Your task to perform on an android device: Go to sound settings Image 0: 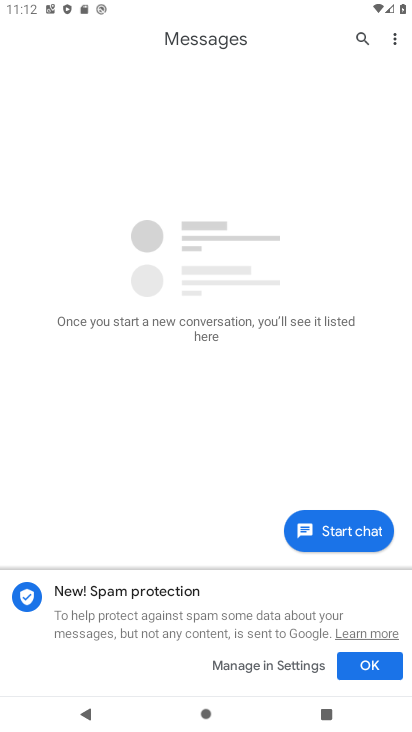
Step 0: press home button
Your task to perform on an android device: Go to sound settings Image 1: 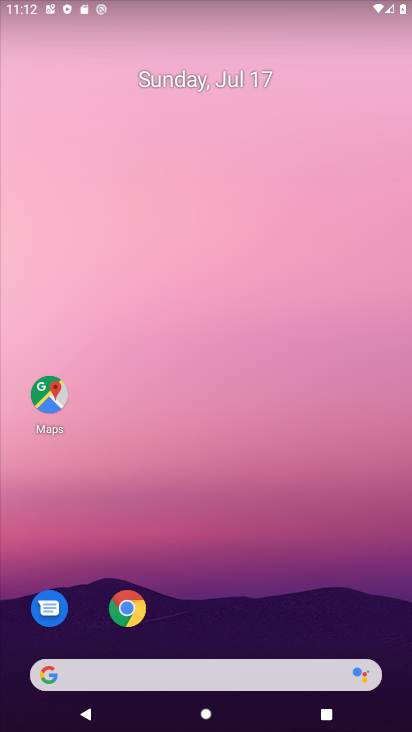
Step 1: drag from (202, 675) to (387, 265)
Your task to perform on an android device: Go to sound settings Image 2: 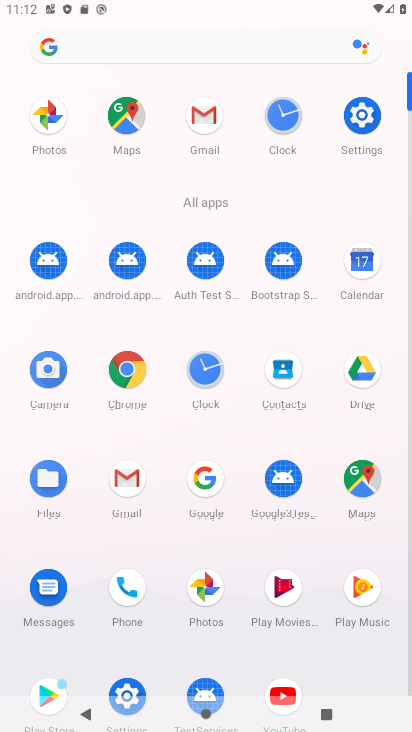
Step 2: click (359, 116)
Your task to perform on an android device: Go to sound settings Image 3: 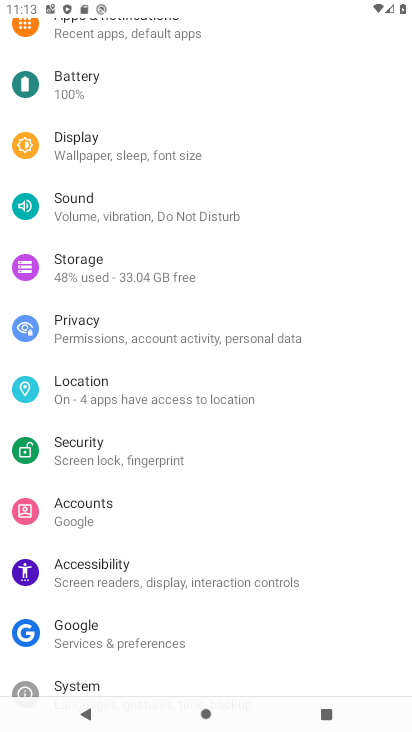
Step 3: click (50, 209)
Your task to perform on an android device: Go to sound settings Image 4: 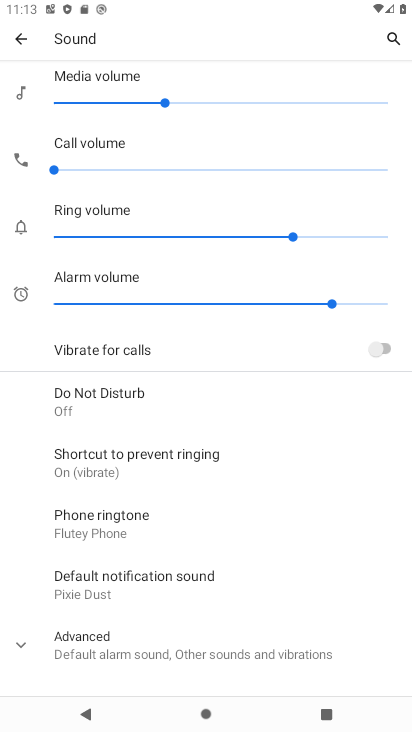
Step 4: task complete